Your task to perform on an android device: When is my next appointment? Image 0: 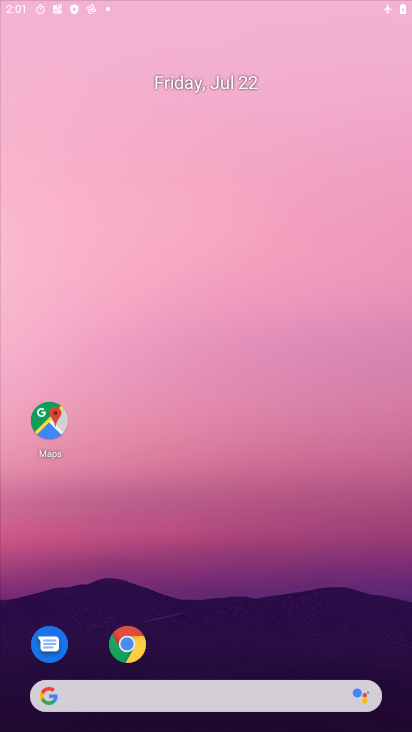
Step 0: click (256, 272)
Your task to perform on an android device: When is my next appointment? Image 1: 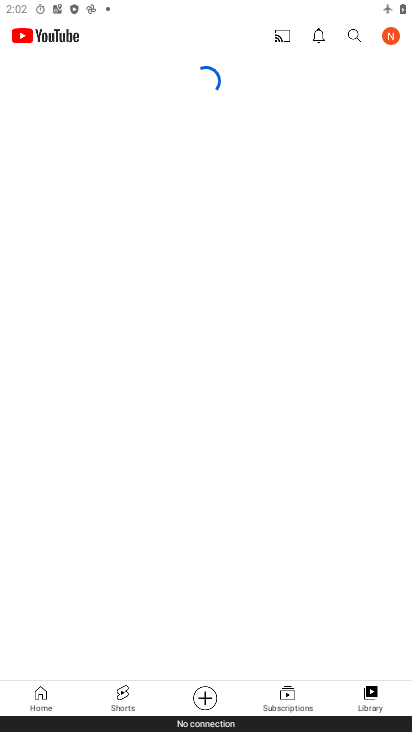
Step 1: press home button
Your task to perform on an android device: When is my next appointment? Image 2: 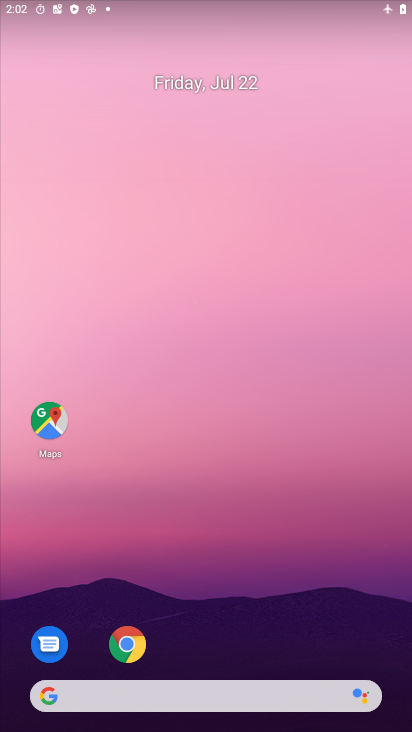
Step 2: drag from (289, 674) to (278, 187)
Your task to perform on an android device: When is my next appointment? Image 3: 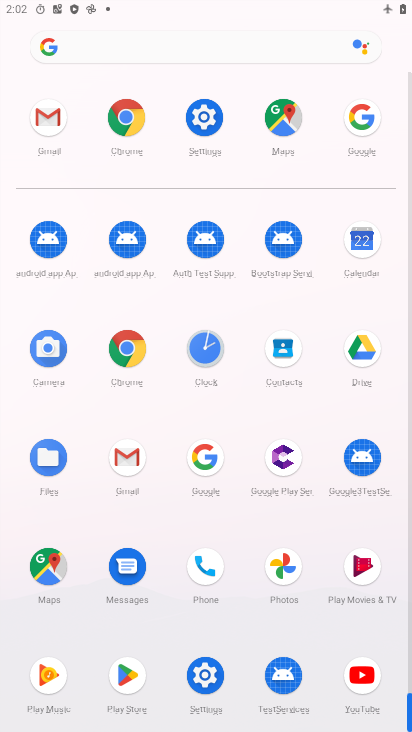
Step 3: click (368, 238)
Your task to perform on an android device: When is my next appointment? Image 4: 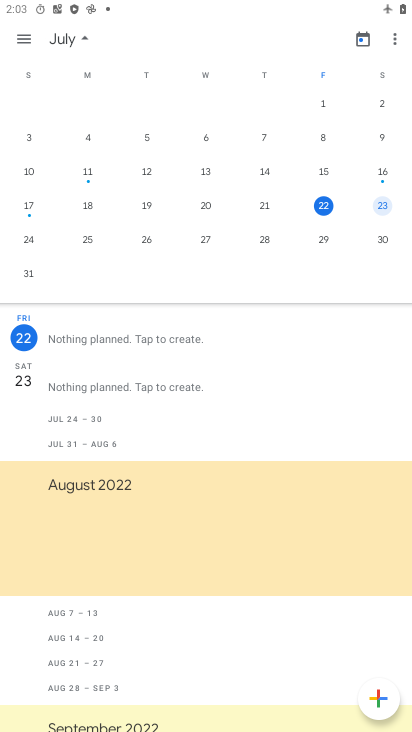
Step 4: click (27, 37)
Your task to perform on an android device: When is my next appointment? Image 5: 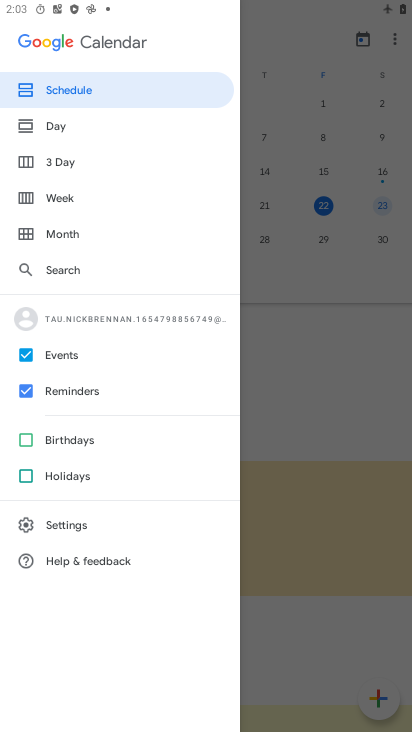
Step 5: click (297, 344)
Your task to perform on an android device: When is my next appointment? Image 6: 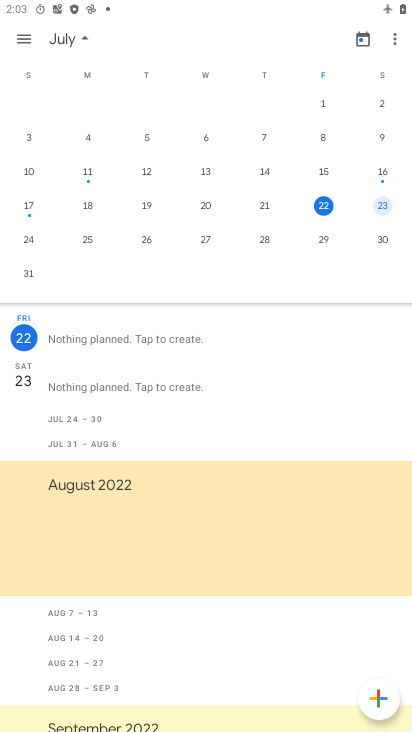
Step 6: task complete